Your task to perform on an android device: Go to sound settings Image 0: 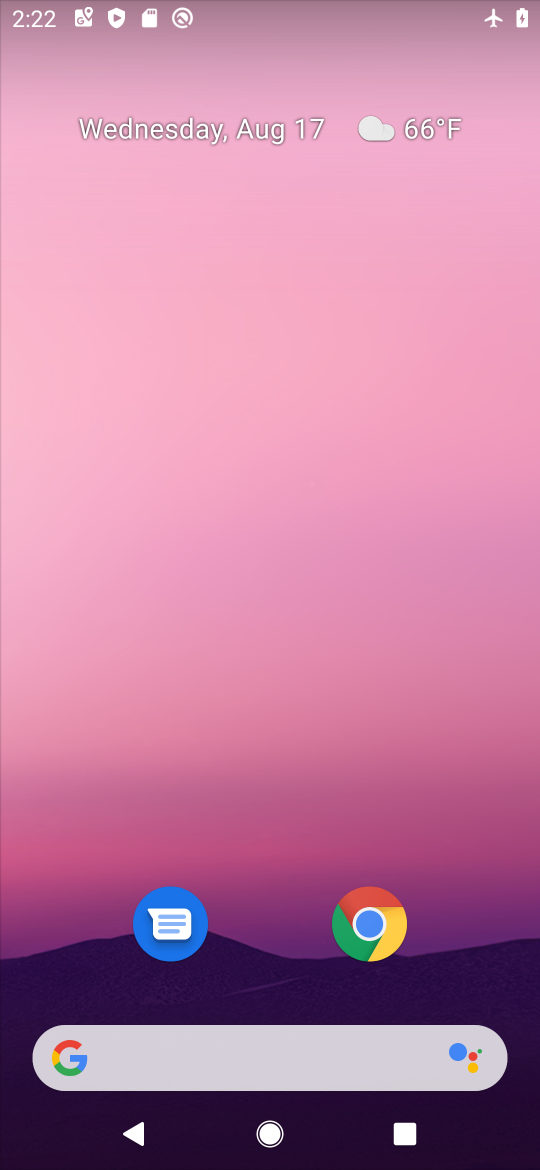
Step 0: drag from (222, 1061) to (242, 260)
Your task to perform on an android device: Go to sound settings Image 1: 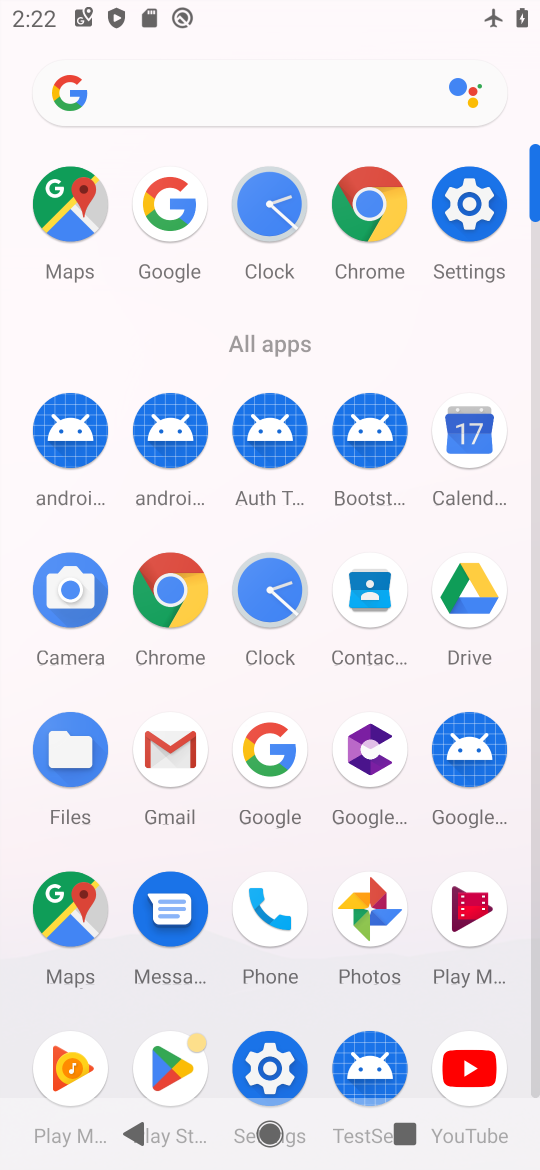
Step 1: click (474, 204)
Your task to perform on an android device: Go to sound settings Image 2: 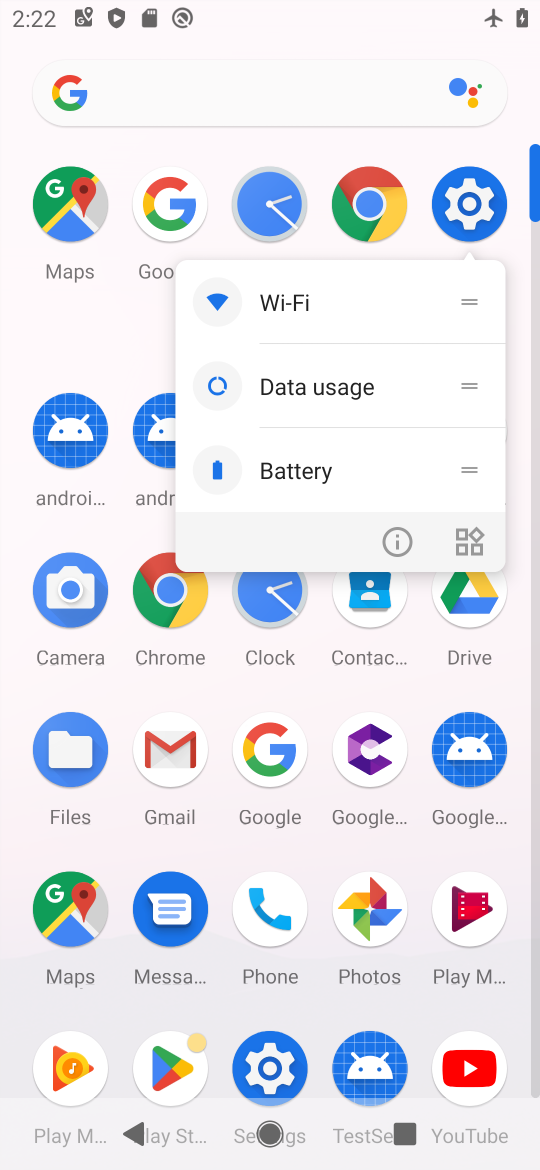
Step 2: click (474, 204)
Your task to perform on an android device: Go to sound settings Image 3: 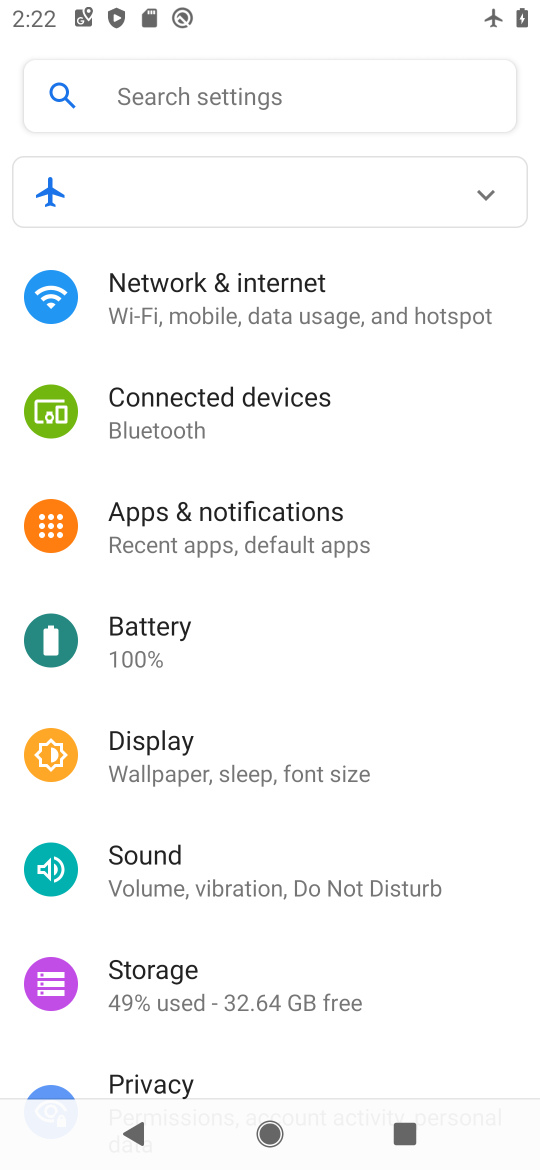
Step 3: click (153, 874)
Your task to perform on an android device: Go to sound settings Image 4: 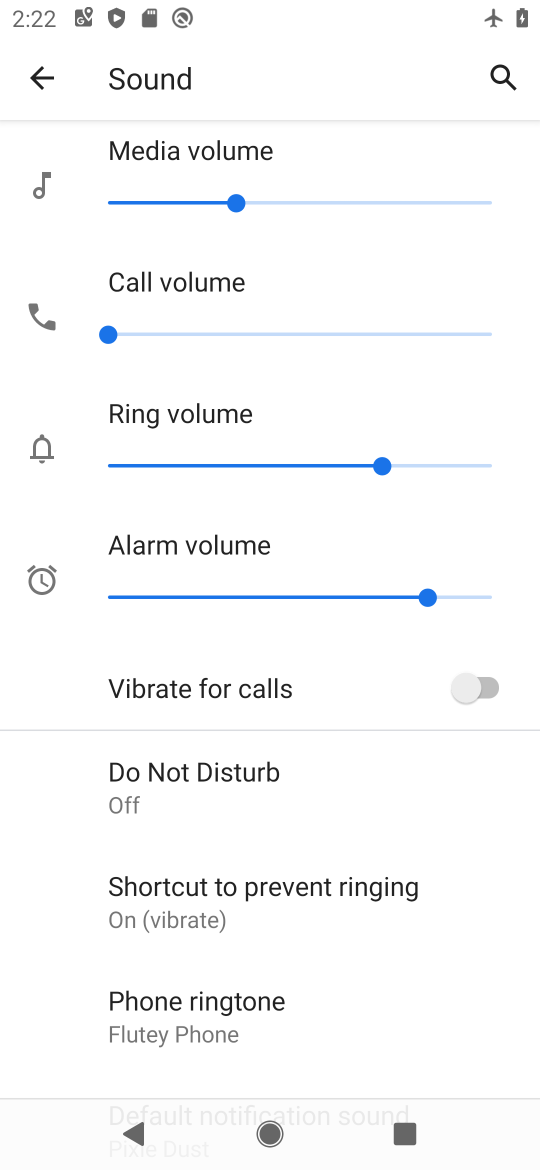
Step 4: task complete